Your task to perform on an android device: open app "Life360: Find Family & Friends" (install if not already installed) Image 0: 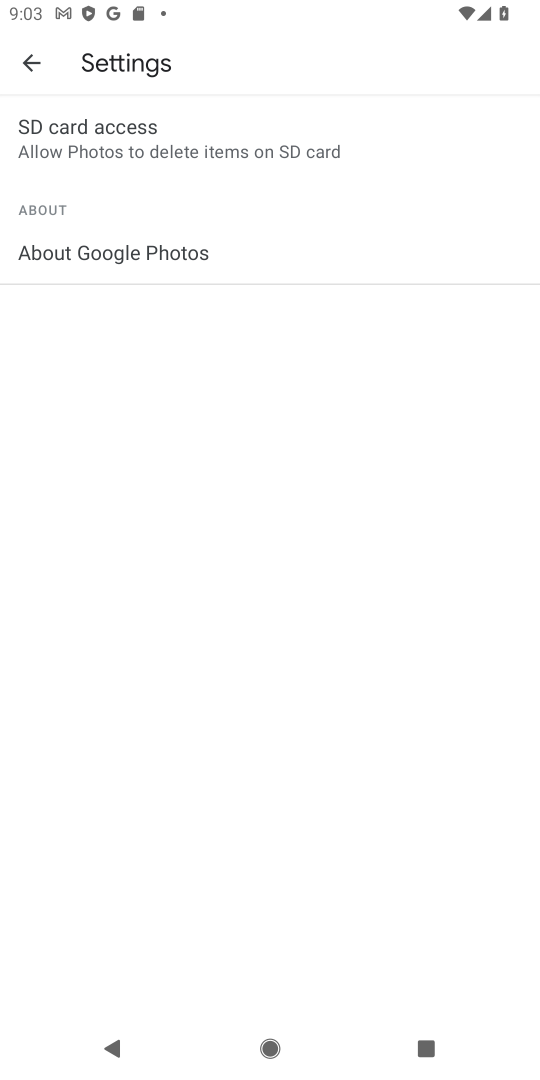
Step 0: click (25, 66)
Your task to perform on an android device: open app "Life360: Find Family & Friends" (install if not already installed) Image 1: 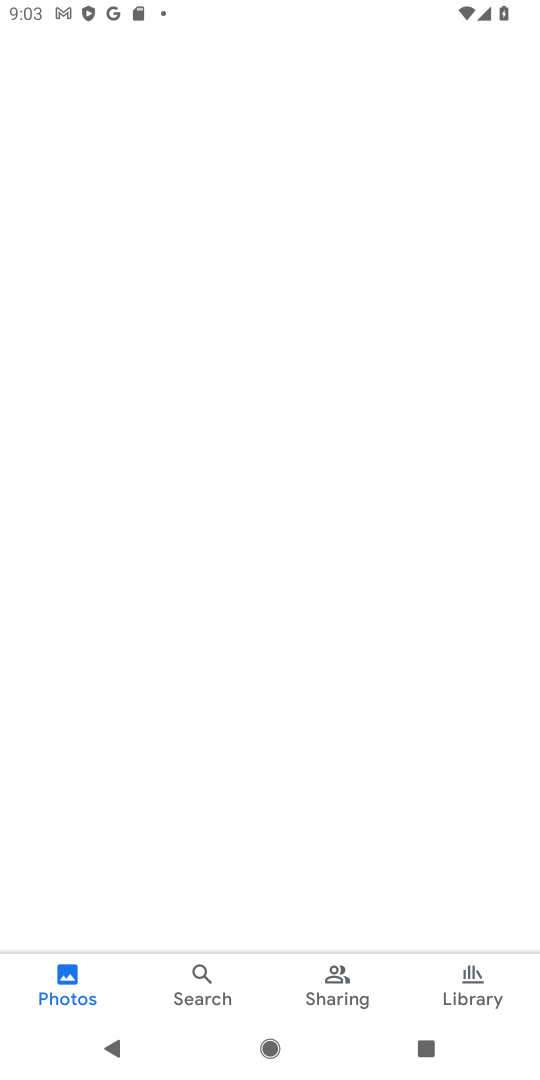
Step 1: press back button
Your task to perform on an android device: open app "Life360: Find Family & Friends" (install if not already installed) Image 2: 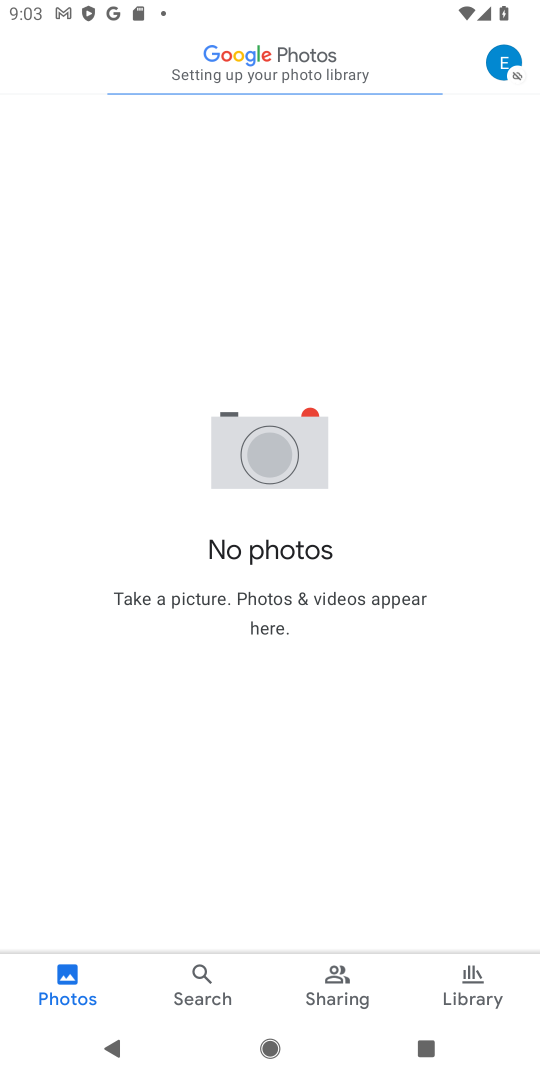
Step 2: press back button
Your task to perform on an android device: open app "Life360: Find Family & Friends" (install if not already installed) Image 3: 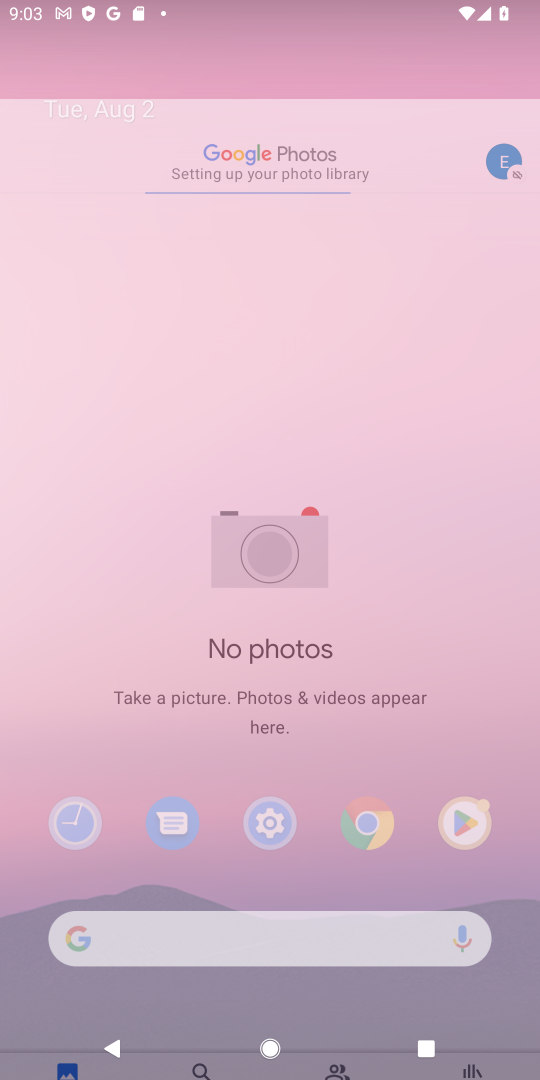
Step 3: press back button
Your task to perform on an android device: open app "Life360: Find Family & Friends" (install if not already installed) Image 4: 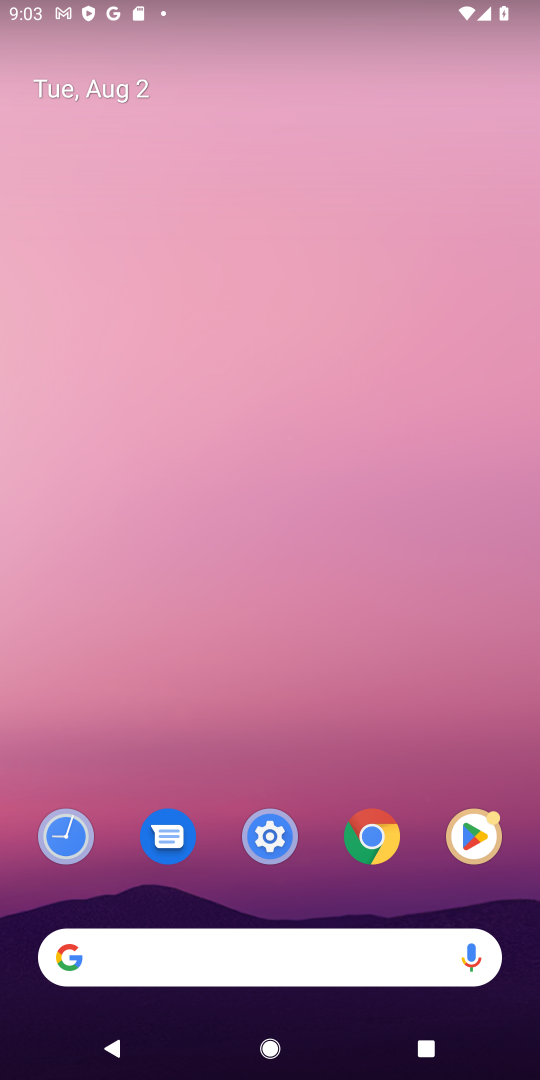
Step 4: drag from (222, 500) to (143, 188)
Your task to perform on an android device: open app "Life360: Find Family & Friends" (install if not already installed) Image 5: 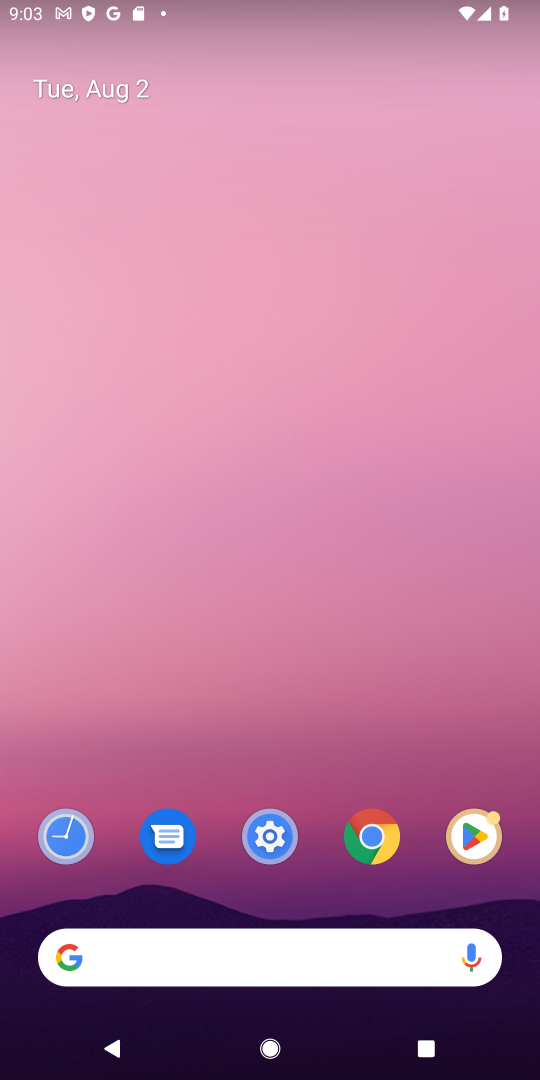
Step 5: drag from (280, 692) to (173, 237)
Your task to perform on an android device: open app "Life360: Find Family & Friends" (install if not already installed) Image 6: 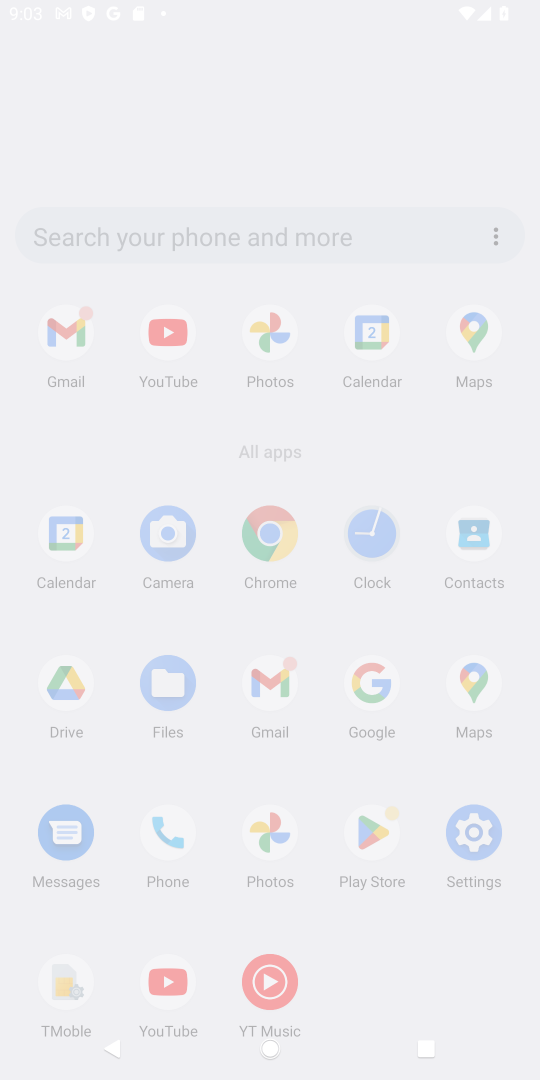
Step 6: drag from (251, 863) to (200, 191)
Your task to perform on an android device: open app "Life360: Find Family & Friends" (install if not already installed) Image 7: 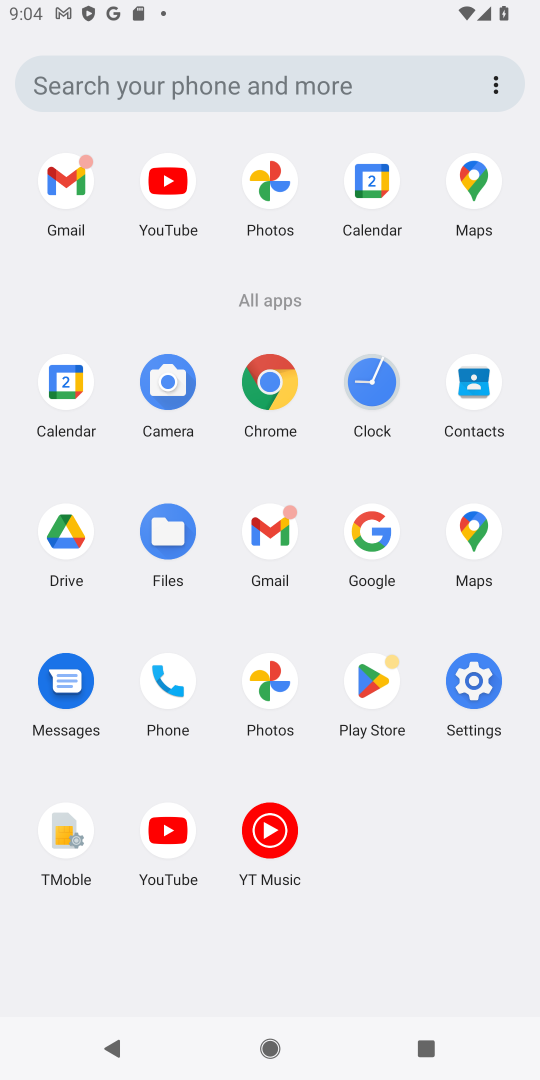
Step 7: drag from (377, 666) to (329, 696)
Your task to perform on an android device: open app "Life360: Find Family & Friends" (install if not already installed) Image 8: 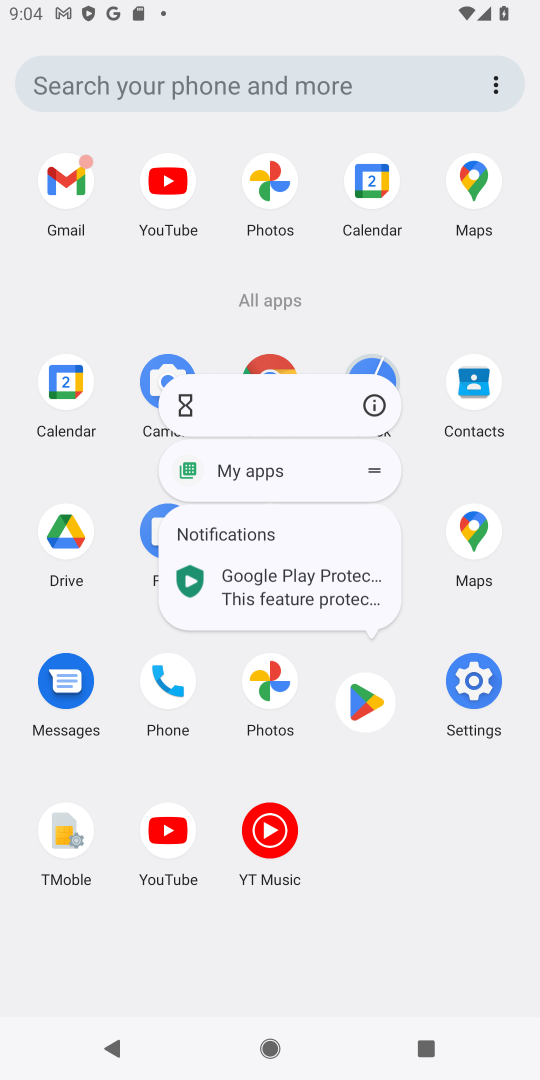
Step 8: click (360, 697)
Your task to perform on an android device: open app "Life360: Find Family & Friends" (install if not already installed) Image 9: 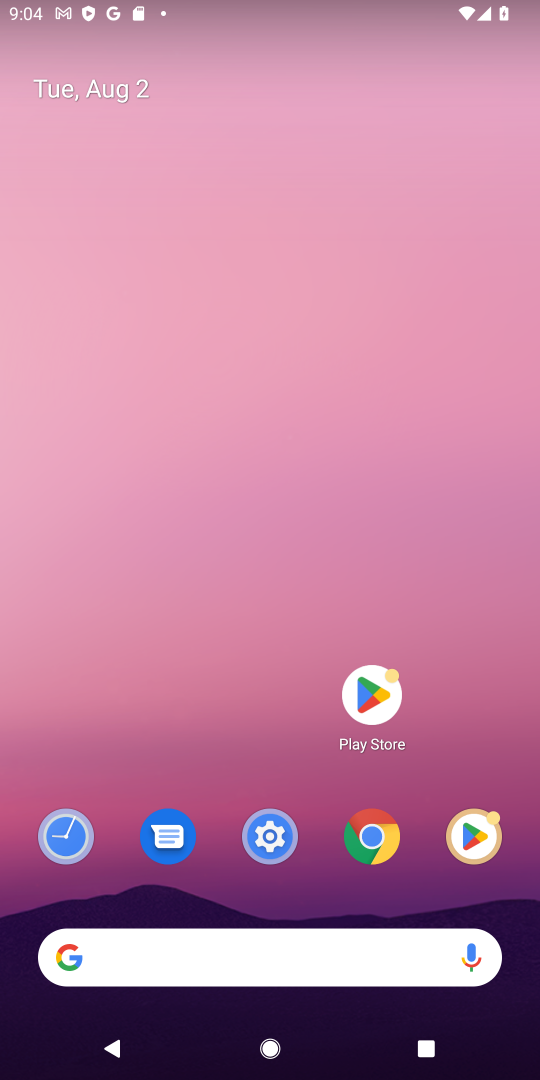
Step 9: click (360, 697)
Your task to perform on an android device: open app "Life360: Find Family & Friends" (install if not already installed) Image 10: 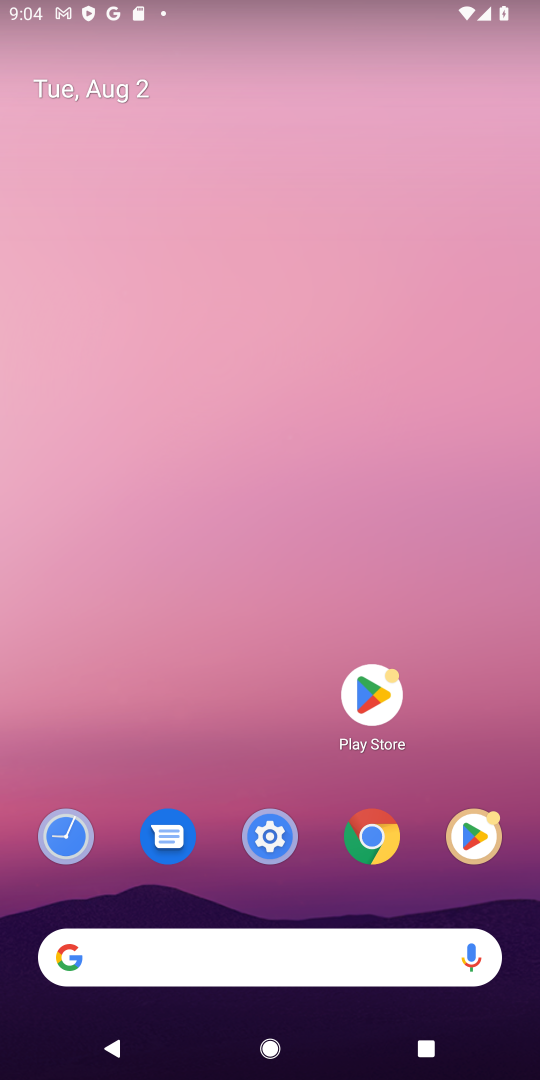
Step 10: drag from (292, 894) to (171, 258)
Your task to perform on an android device: open app "Life360: Find Family & Friends" (install if not already installed) Image 11: 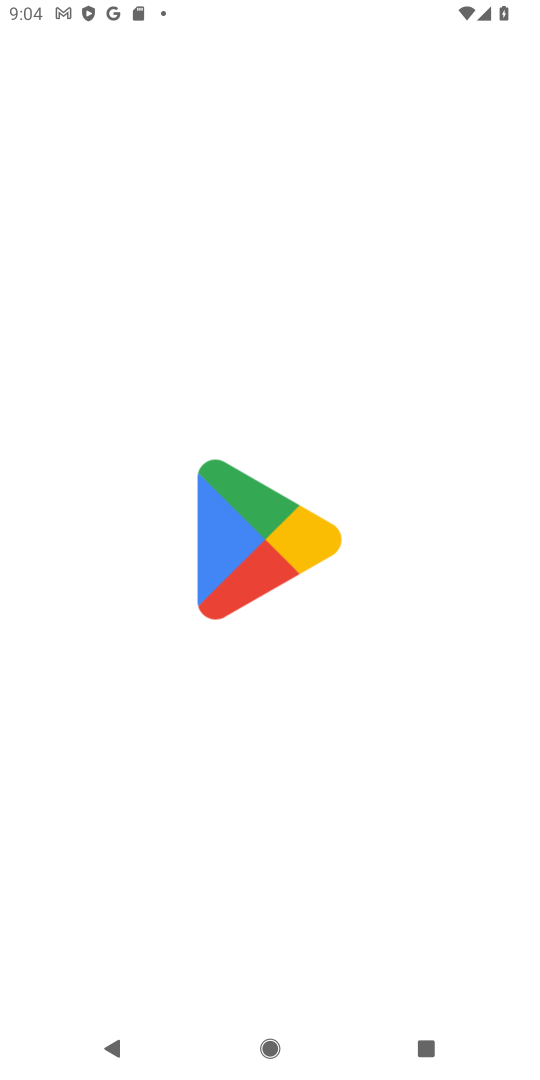
Step 11: click (156, 292)
Your task to perform on an android device: open app "Life360: Find Family & Friends" (install if not already installed) Image 12: 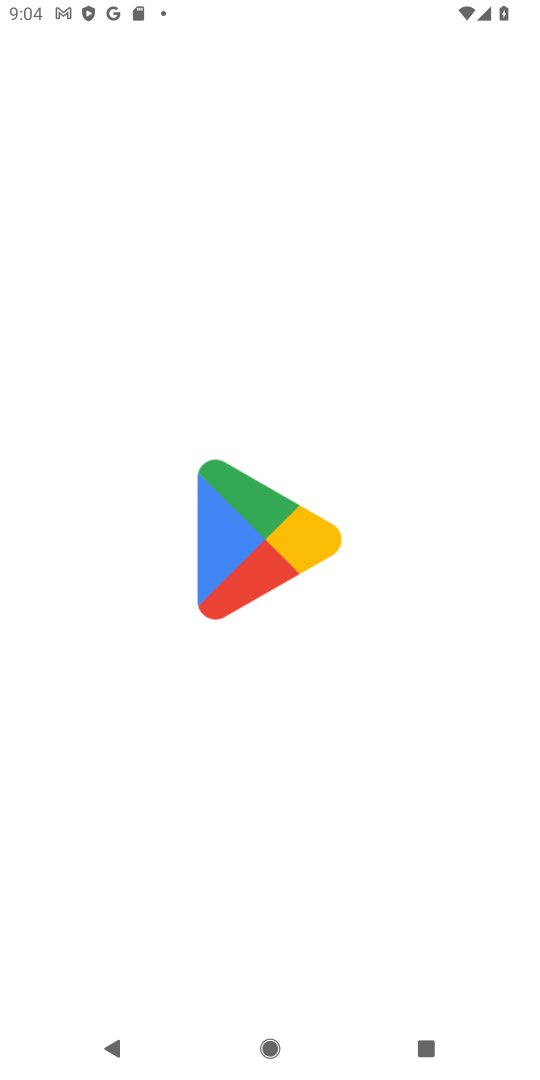
Step 12: drag from (221, 476) to (120, 159)
Your task to perform on an android device: open app "Life360: Find Family & Friends" (install if not already installed) Image 13: 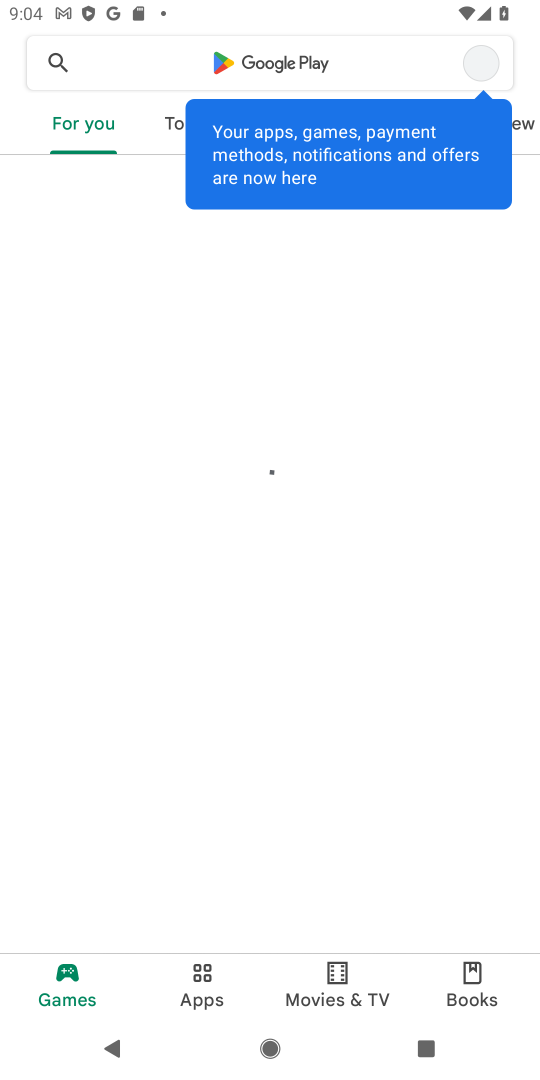
Step 13: click (129, 49)
Your task to perform on an android device: open app "Life360: Find Family & Friends" (install if not already installed) Image 14: 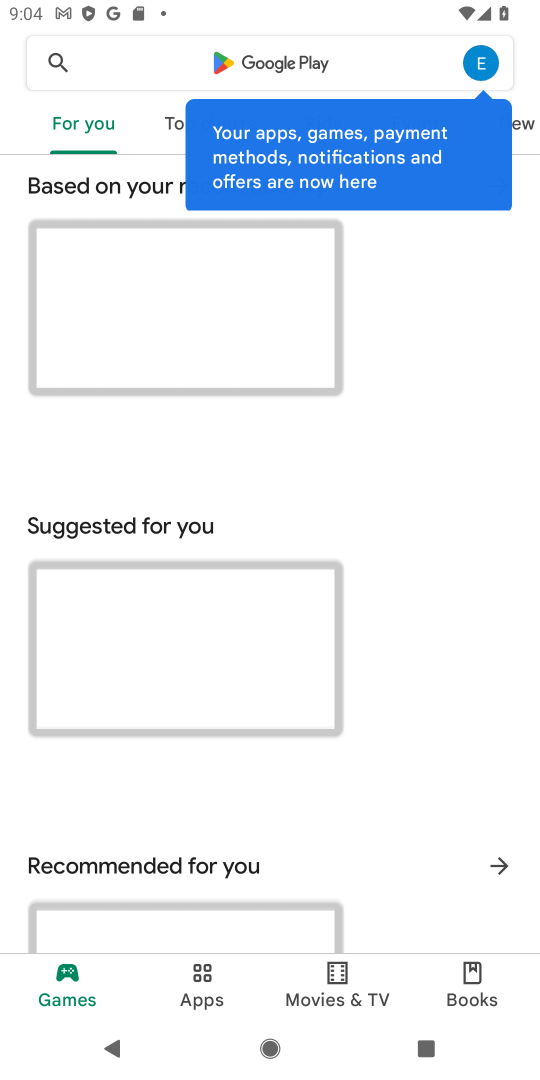
Step 14: click (137, 57)
Your task to perform on an android device: open app "Life360: Find Family & Friends" (install if not already installed) Image 15: 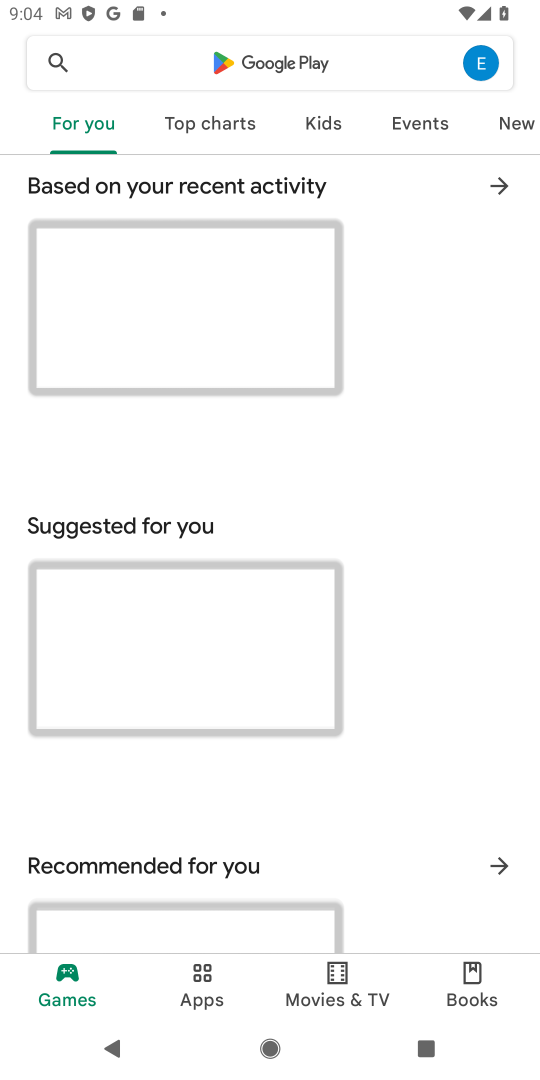
Step 15: click (143, 56)
Your task to perform on an android device: open app "Life360: Find Family & Friends" (install if not already installed) Image 16: 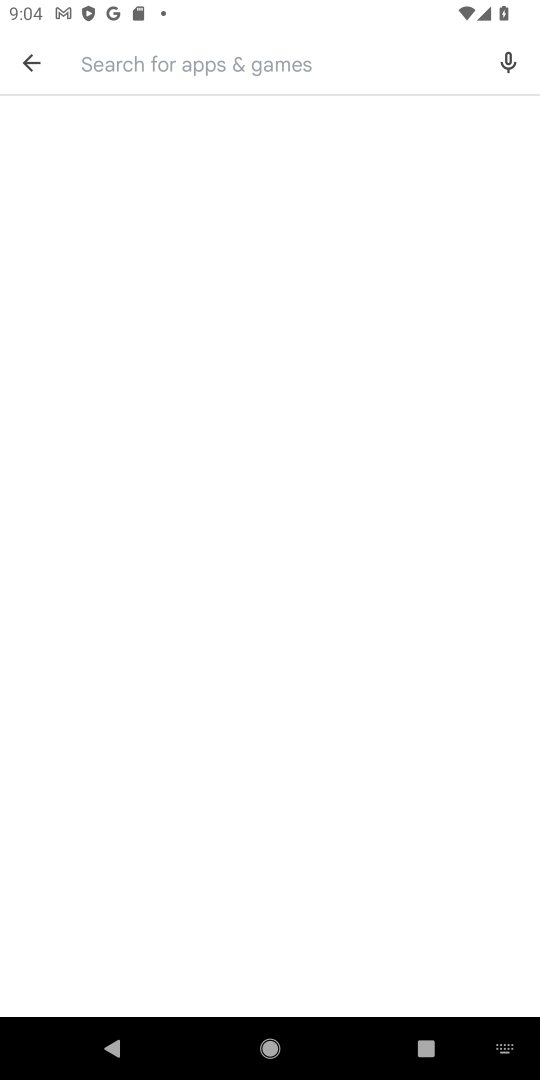
Step 16: click (152, 63)
Your task to perform on an android device: open app "Life360: Find Family & Friends" (install if not already installed) Image 17: 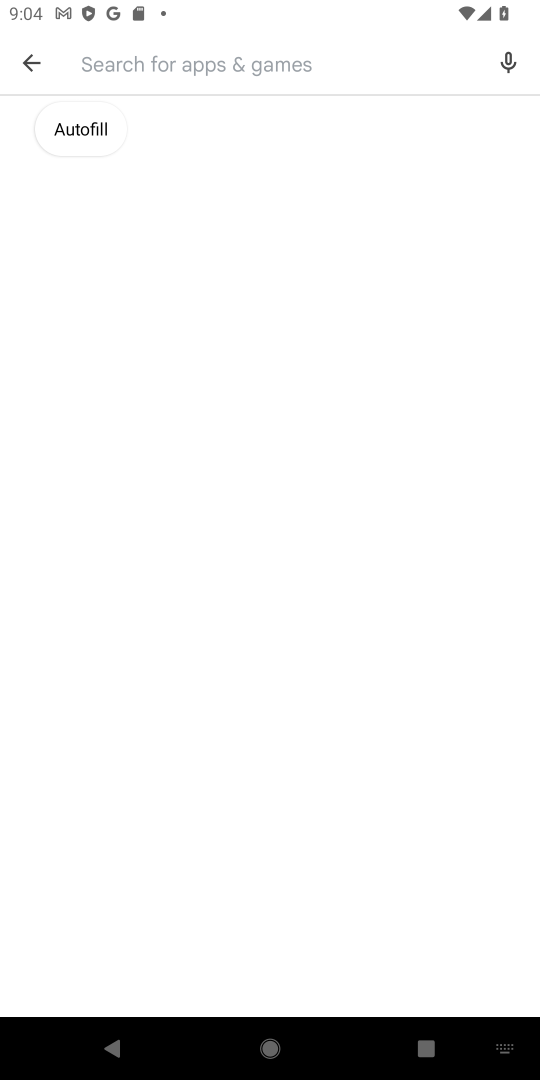
Step 17: type "life360"
Your task to perform on an android device: open app "Life360: Find Family & Friends" (install if not already installed) Image 18: 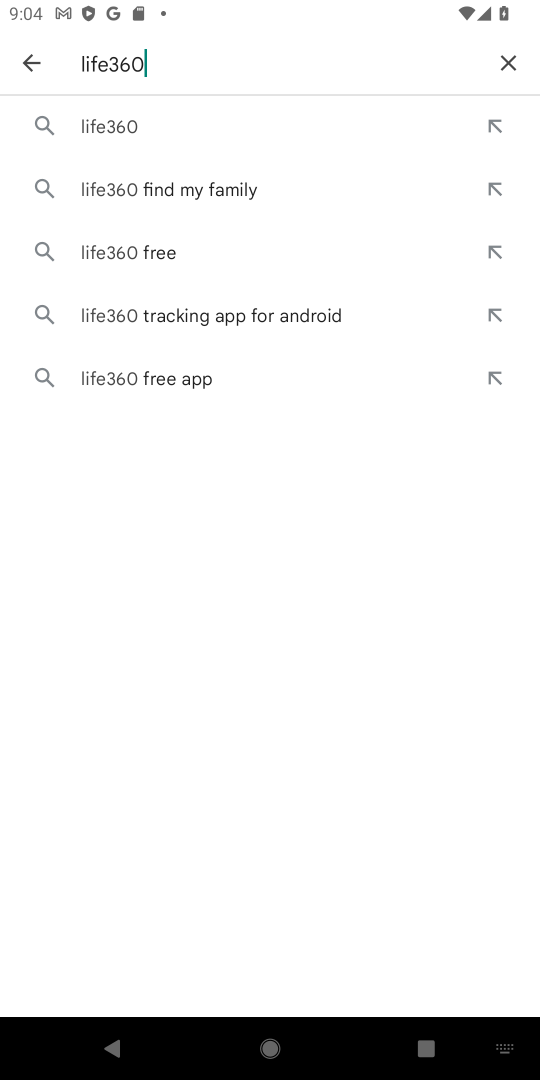
Step 18: click (118, 124)
Your task to perform on an android device: open app "Life360: Find Family & Friends" (install if not already installed) Image 19: 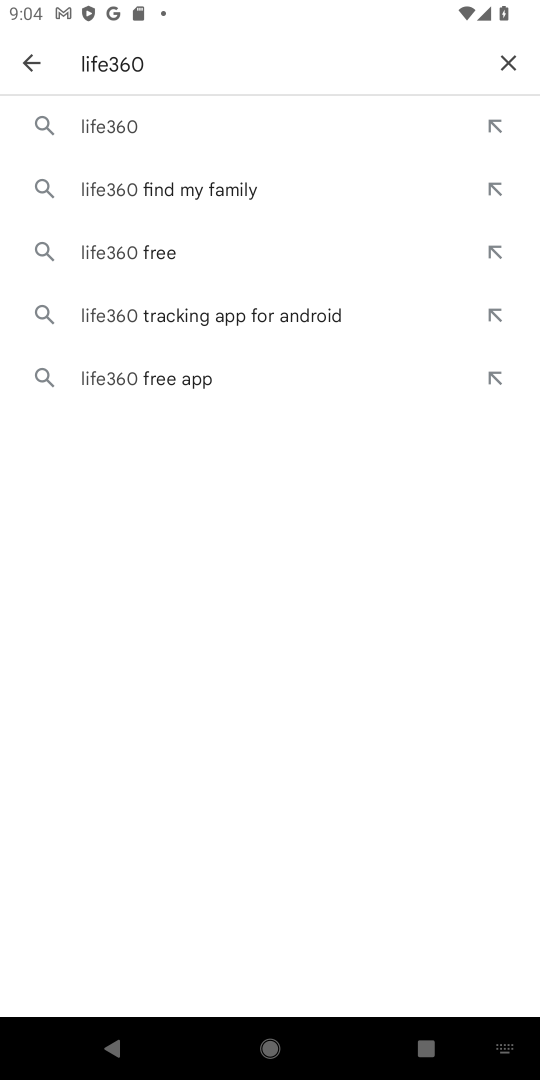
Step 19: click (118, 124)
Your task to perform on an android device: open app "Life360: Find Family & Friends" (install if not already installed) Image 20: 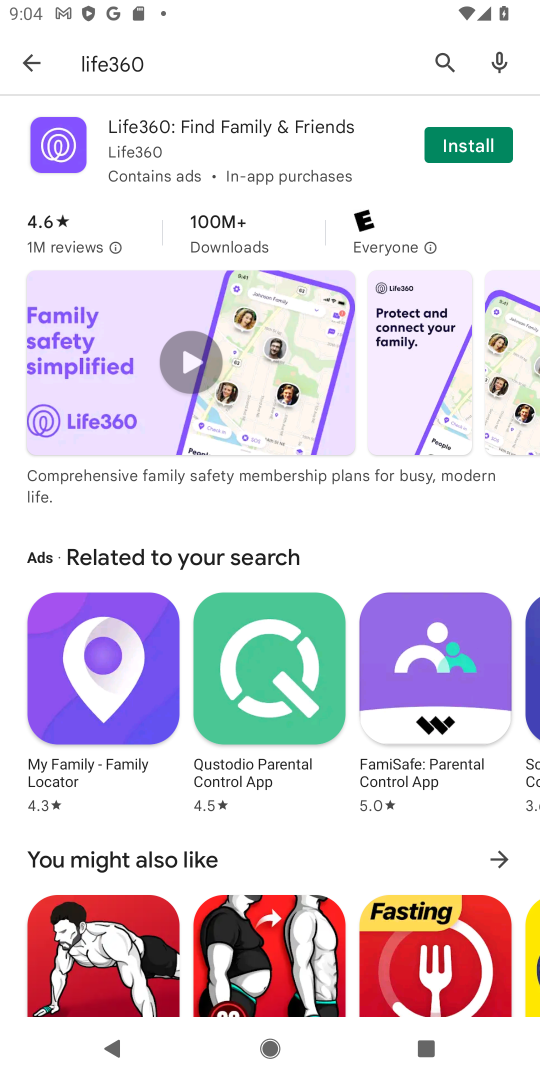
Step 20: click (454, 147)
Your task to perform on an android device: open app "Life360: Find Family & Friends" (install if not already installed) Image 21: 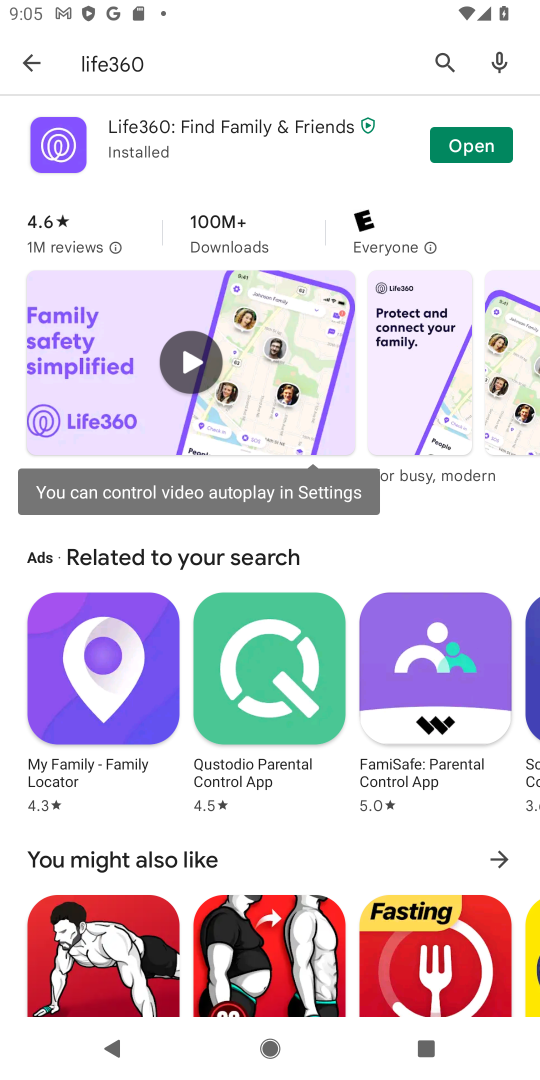
Step 21: click (462, 141)
Your task to perform on an android device: open app "Life360: Find Family & Friends" (install if not already installed) Image 22: 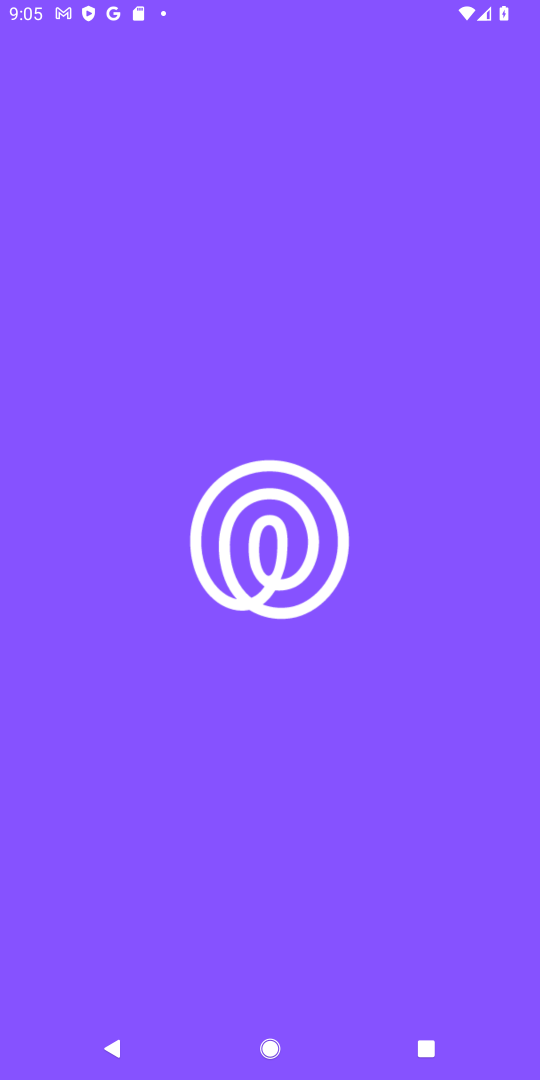
Step 22: task complete